Your task to perform on an android device: turn vacation reply on in the gmail app Image 0: 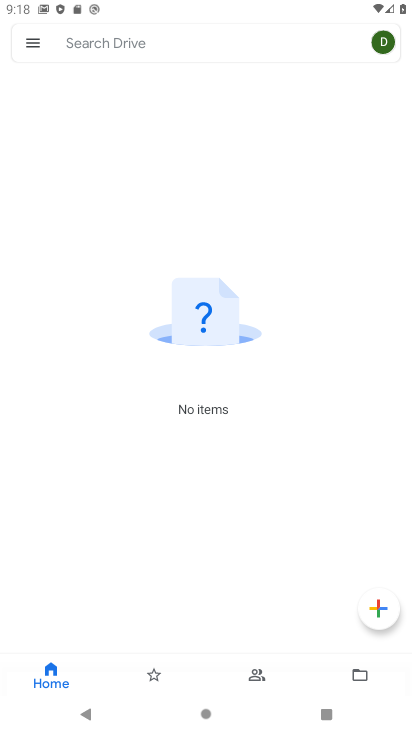
Step 0: press home button
Your task to perform on an android device: turn vacation reply on in the gmail app Image 1: 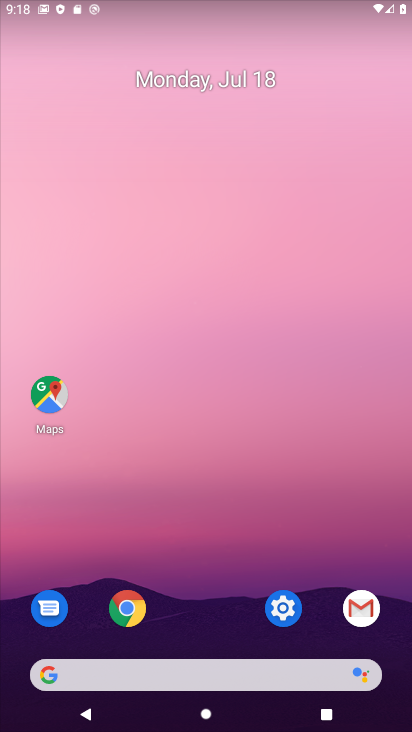
Step 1: click (352, 605)
Your task to perform on an android device: turn vacation reply on in the gmail app Image 2: 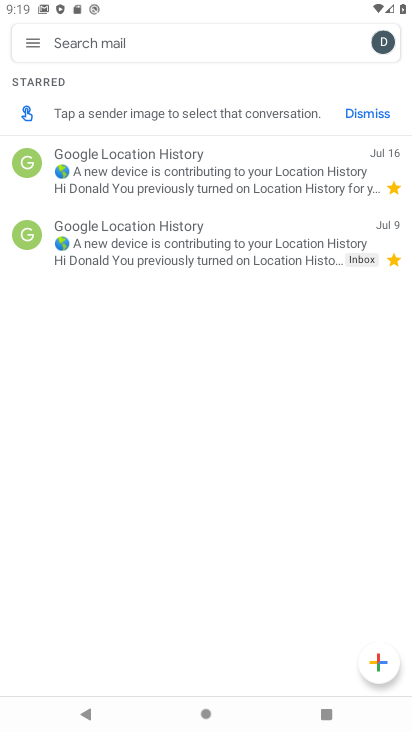
Step 2: click (43, 39)
Your task to perform on an android device: turn vacation reply on in the gmail app Image 3: 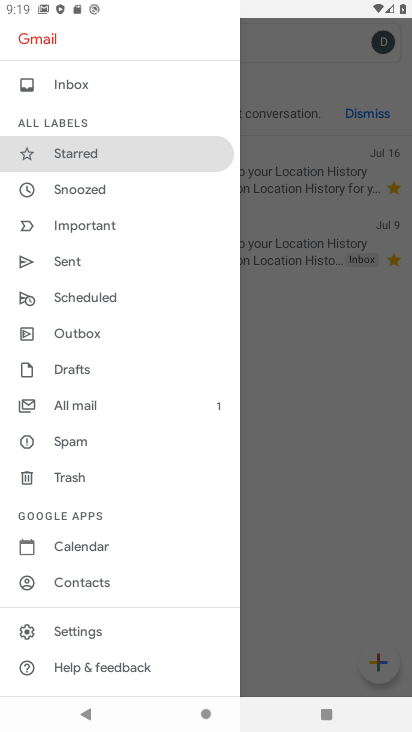
Step 3: click (84, 635)
Your task to perform on an android device: turn vacation reply on in the gmail app Image 4: 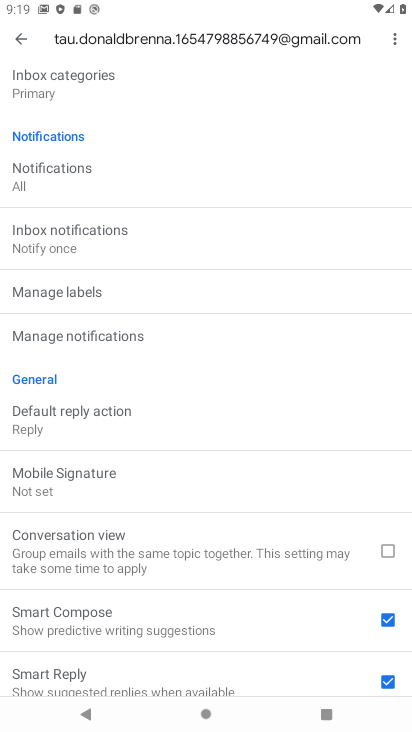
Step 4: drag from (136, 598) to (203, 275)
Your task to perform on an android device: turn vacation reply on in the gmail app Image 5: 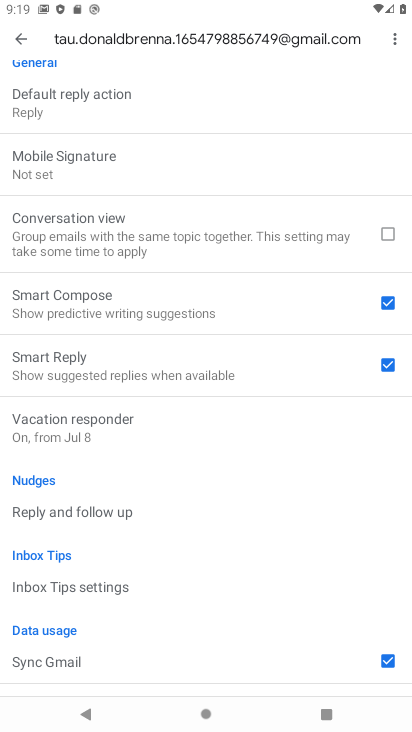
Step 5: click (120, 437)
Your task to perform on an android device: turn vacation reply on in the gmail app Image 6: 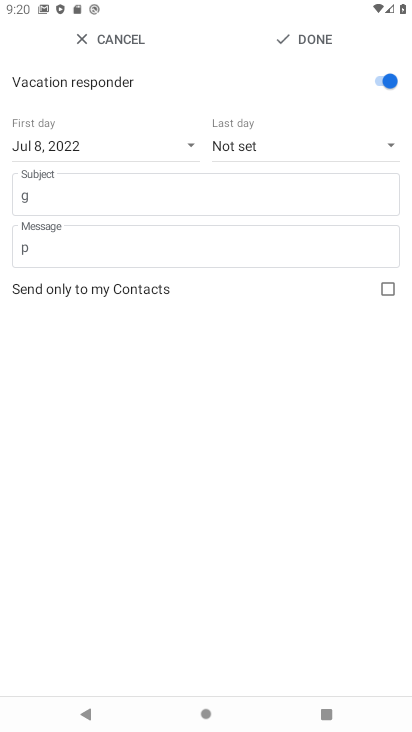
Step 6: task complete